Your task to perform on an android device: turn on the 24-hour format for clock Image 0: 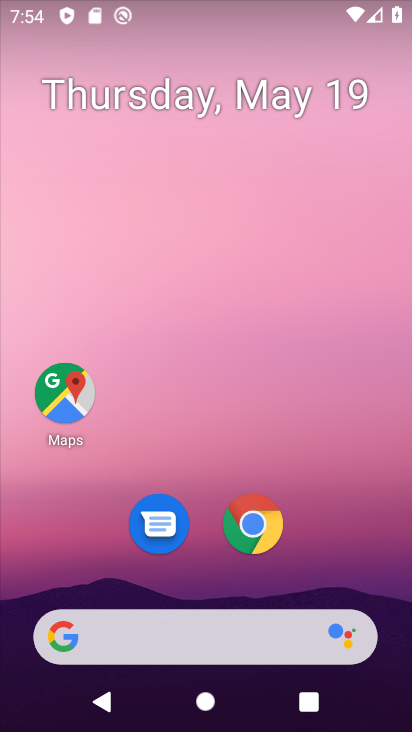
Step 0: drag from (299, 532) to (247, 26)
Your task to perform on an android device: turn on the 24-hour format for clock Image 1: 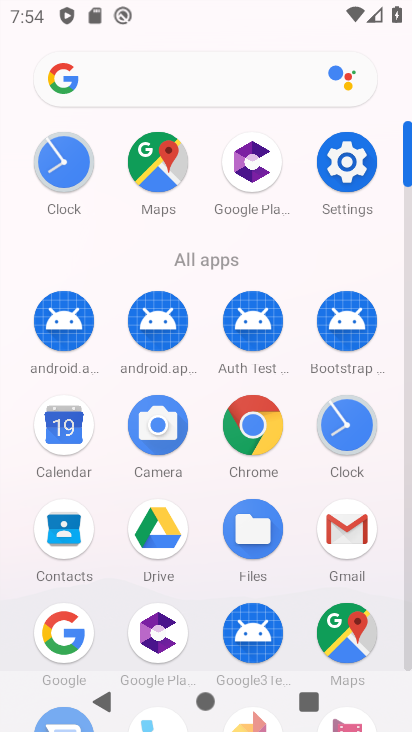
Step 1: click (74, 174)
Your task to perform on an android device: turn on the 24-hour format for clock Image 2: 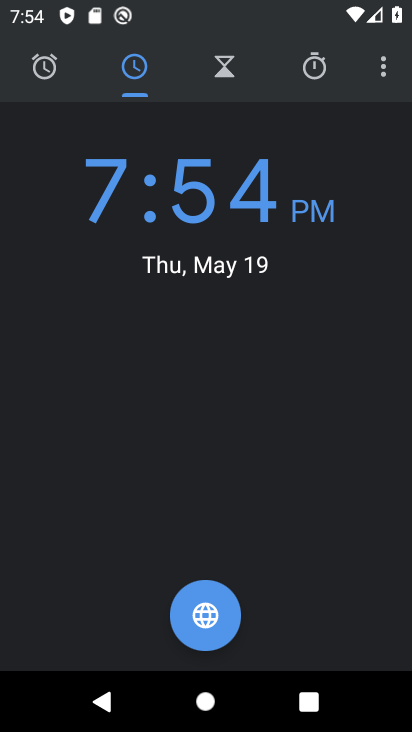
Step 2: click (382, 66)
Your task to perform on an android device: turn on the 24-hour format for clock Image 3: 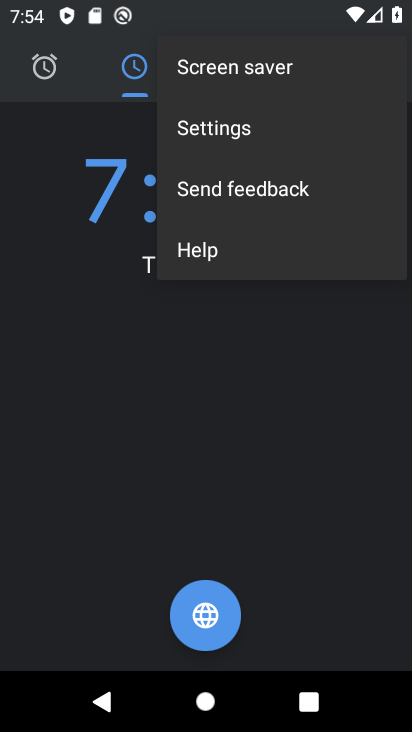
Step 3: click (304, 127)
Your task to perform on an android device: turn on the 24-hour format for clock Image 4: 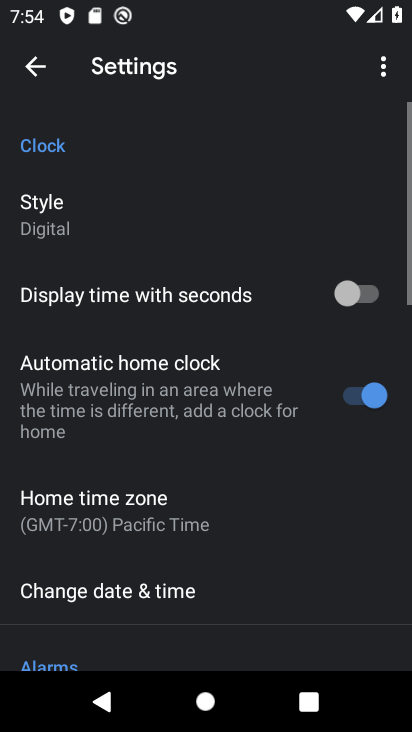
Step 4: drag from (247, 453) to (271, 310)
Your task to perform on an android device: turn on the 24-hour format for clock Image 5: 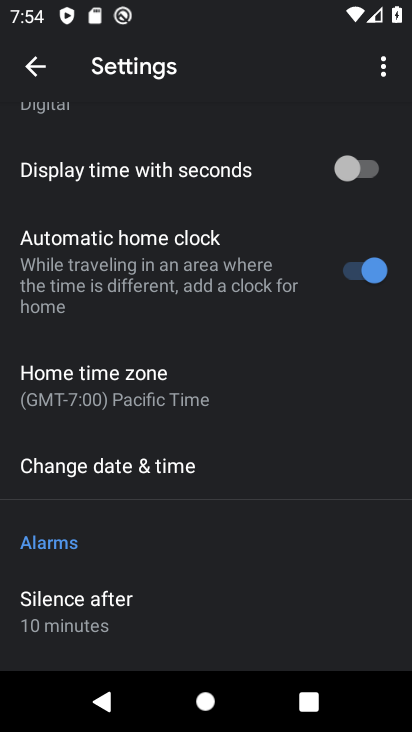
Step 5: click (252, 467)
Your task to perform on an android device: turn on the 24-hour format for clock Image 6: 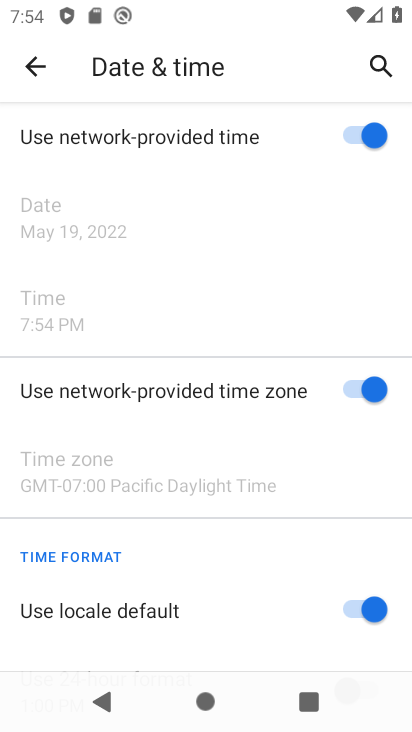
Step 6: drag from (281, 563) to (279, 454)
Your task to perform on an android device: turn on the 24-hour format for clock Image 7: 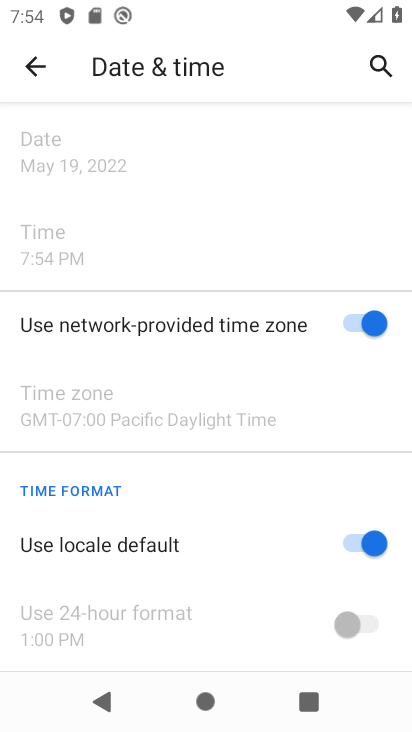
Step 7: click (353, 533)
Your task to perform on an android device: turn on the 24-hour format for clock Image 8: 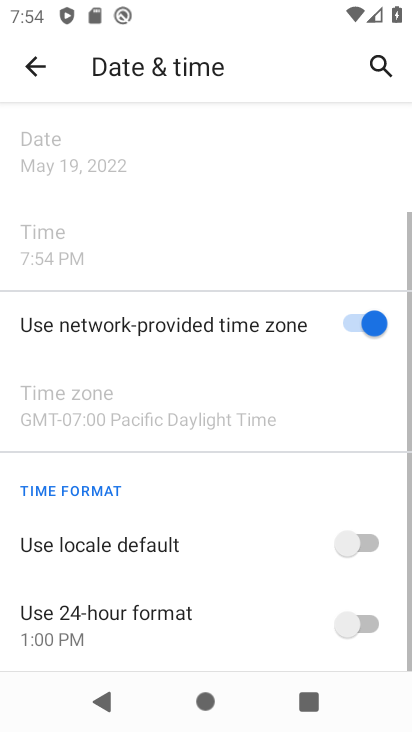
Step 8: click (360, 613)
Your task to perform on an android device: turn on the 24-hour format for clock Image 9: 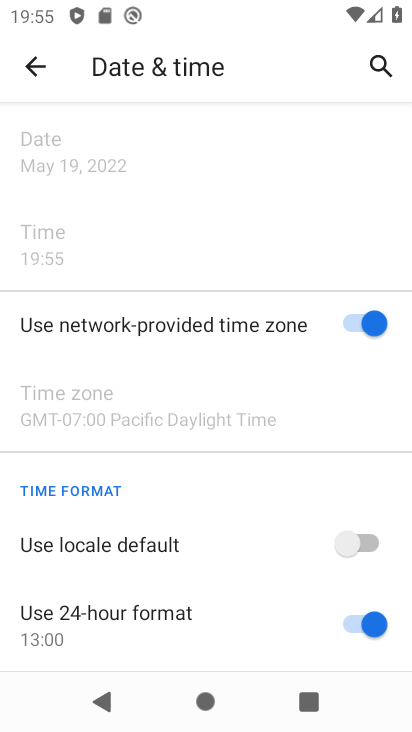
Step 9: task complete